Your task to perform on an android device: toggle wifi Image 0: 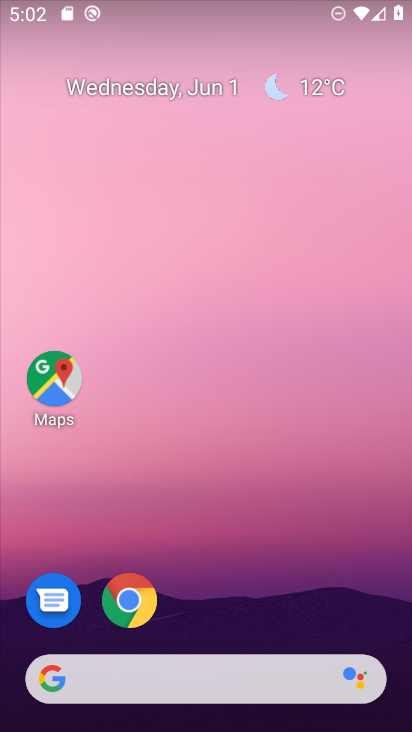
Step 0: drag from (286, 611) to (217, 116)
Your task to perform on an android device: toggle wifi Image 1: 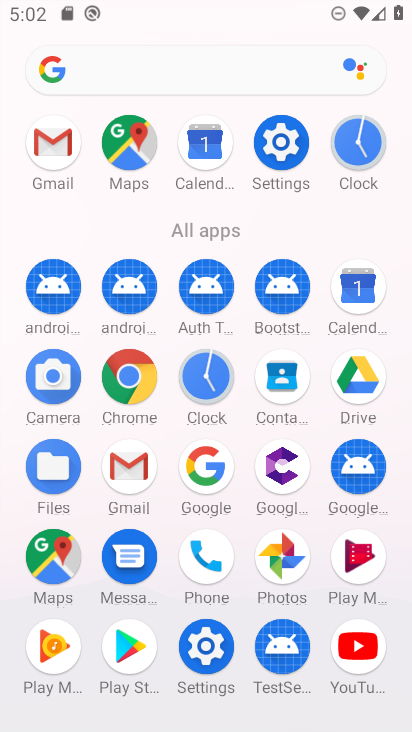
Step 1: click (207, 647)
Your task to perform on an android device: toggle wifi Image 2: 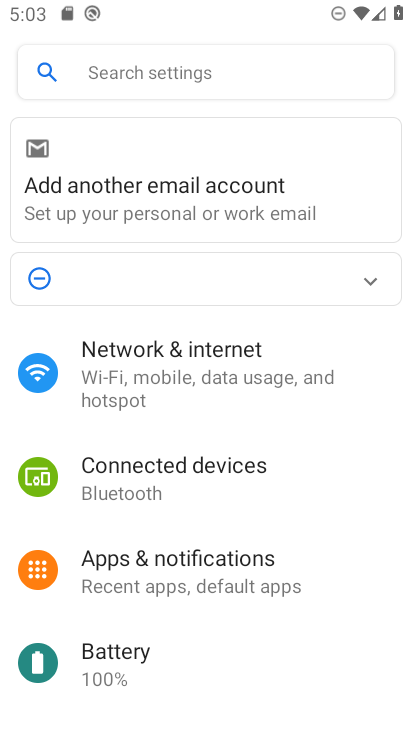
Step 2: click (180, 364)
Your task to perform on an android device: toggle wifi Image 3: 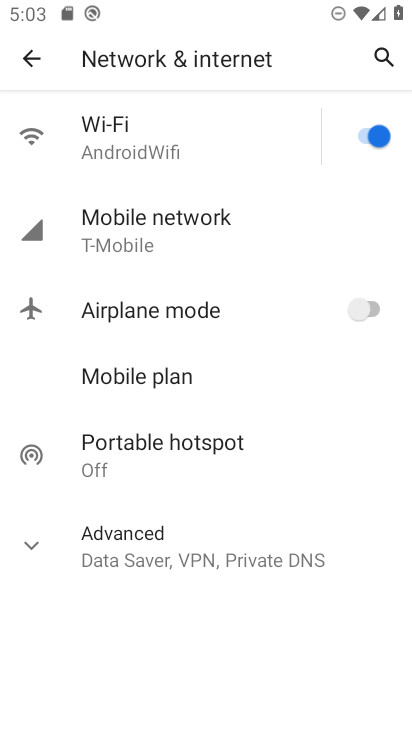
Step 3: click (374, 145)
Your task to perform on an android device: toggle wifi Image 4: 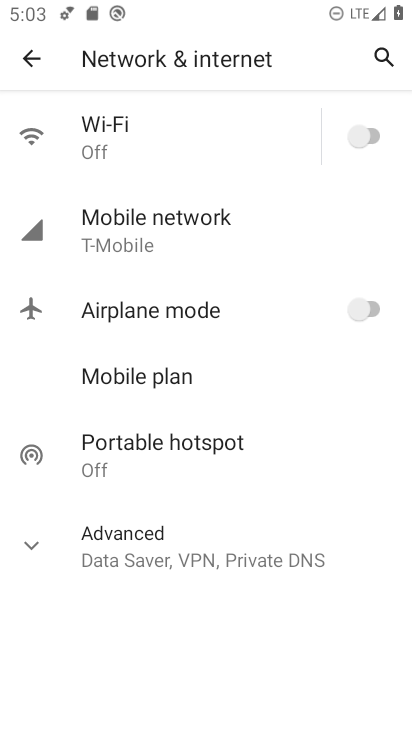
Step 4: task complete